Your task to perform on an android device: star an email in the gmail app Image 0: 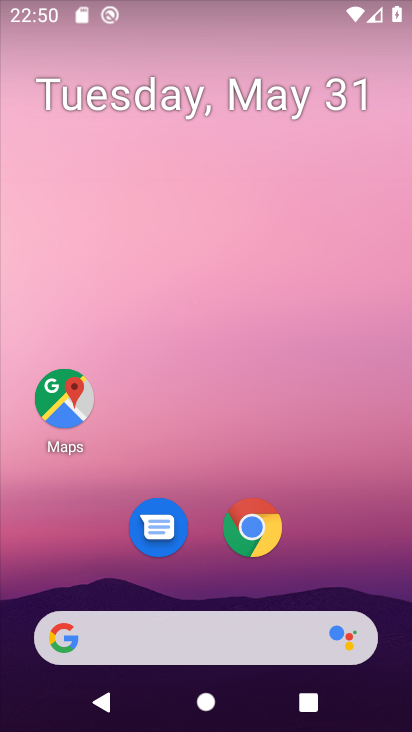
Step 0: drag from (333, 502) to (191, 86)
Your task to perform on an android device: star an email in the gmail app Image 1: 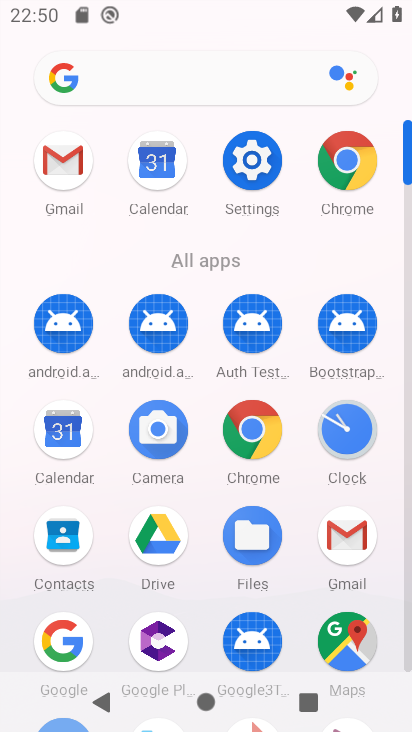
Step 1: click (71, 162)
Your task to perform on an android device: star an email in the gmail app Image 2: 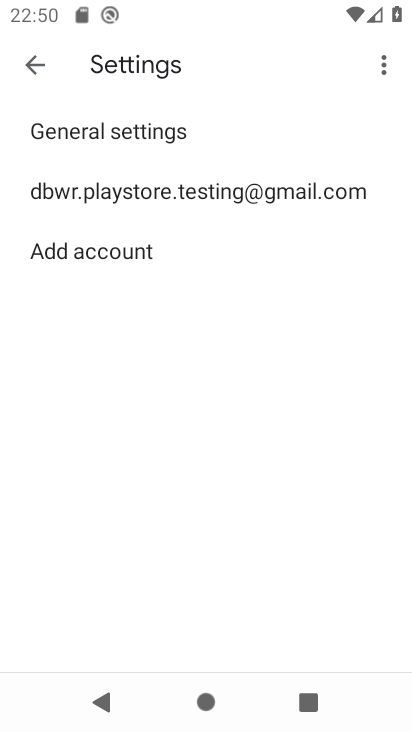
Step 2: click (32, 60)
Your task to perform on an android device: star an email in the gmail app Image 3: 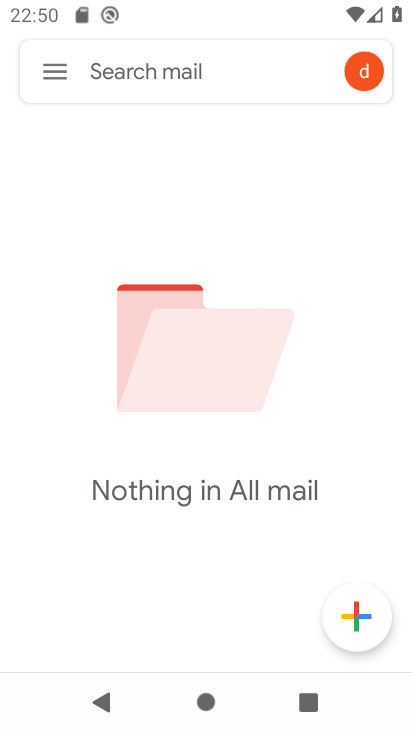
Step 3: task complete